Your task to perform on an android device: Do I have any events tomorrow? Image 0: 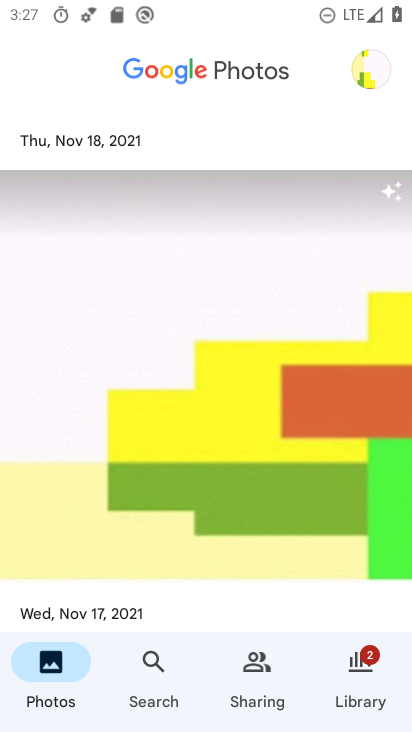
Step 0: press home button
Your task to perform on an android device: Do I have any events tomorrow? Image 1: 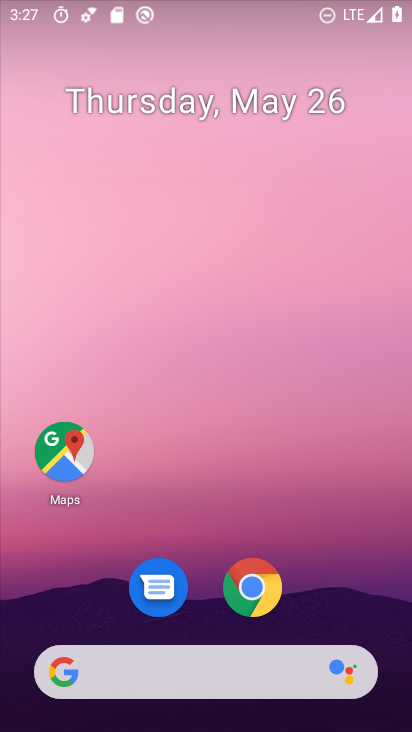
Step 1: drag from (345, 543) to (317, 68)
Your task to perform on an android device: Do I have any events tomorrow? Image 2: 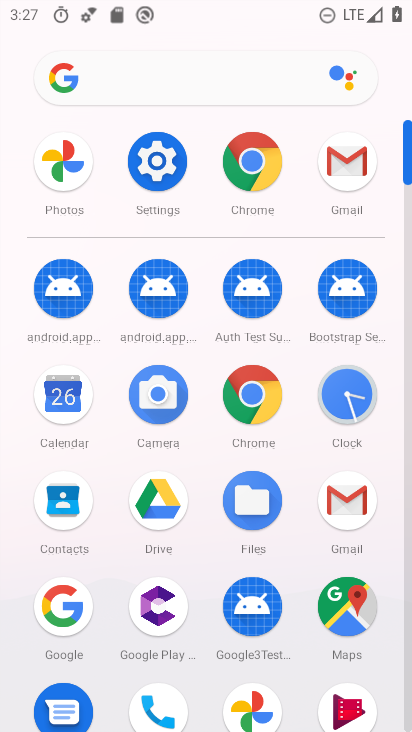
Step 2: click (53, 398)
Your task to perform on an android device: Do I have any events tomorrow? Image 3: 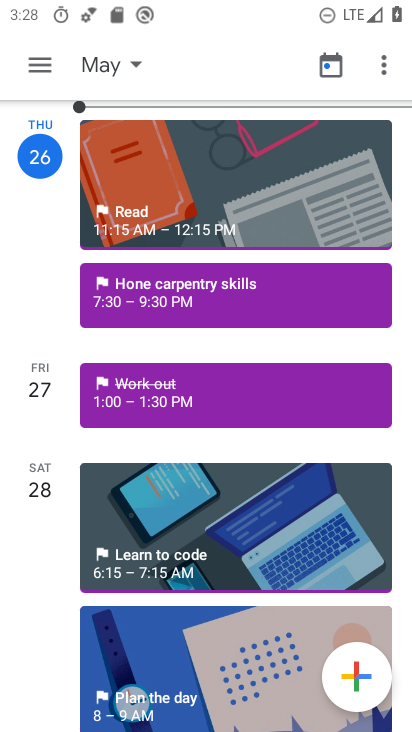
Step 3: task complete